Your task to perform on an android device: uninstall "LinkedIn" Image 0: 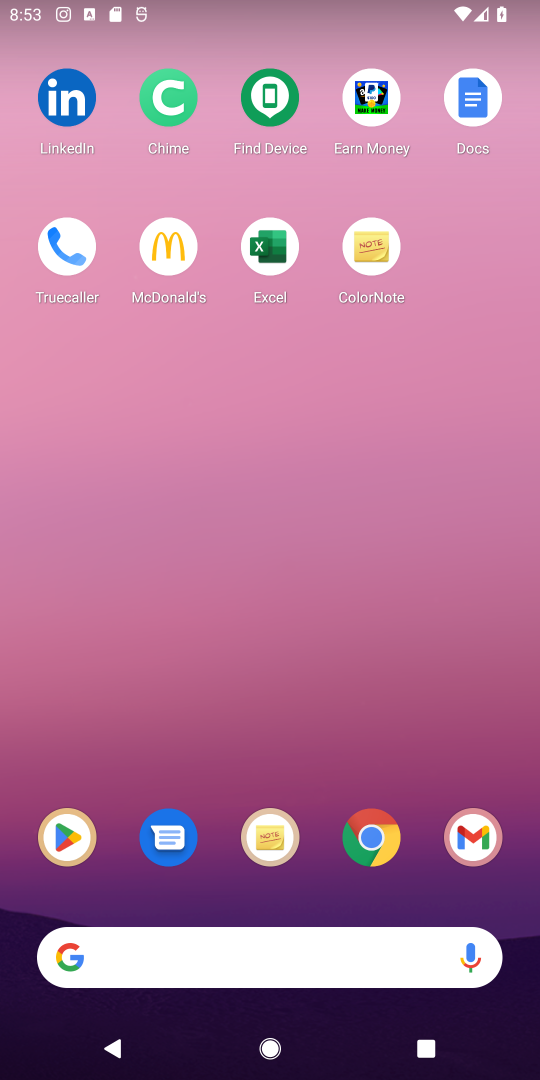
Step 0: click (72, 837)
Your task to perform on an android device: uninstall "LinkedIn" Image 1: 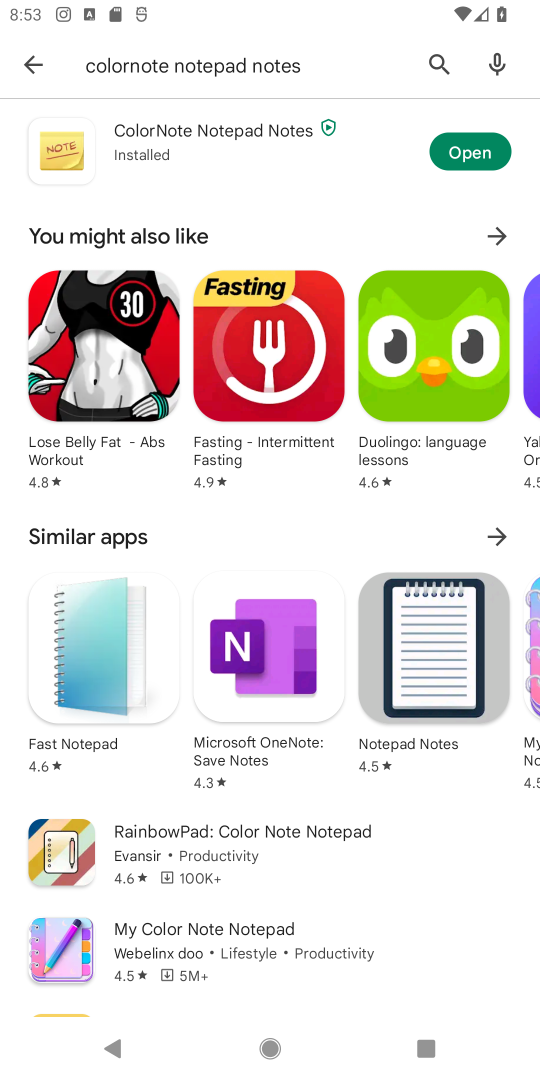
Step 1: click (437, 67)
Your task to perform on an android device: uninstall "LinkedIn" Image 2: 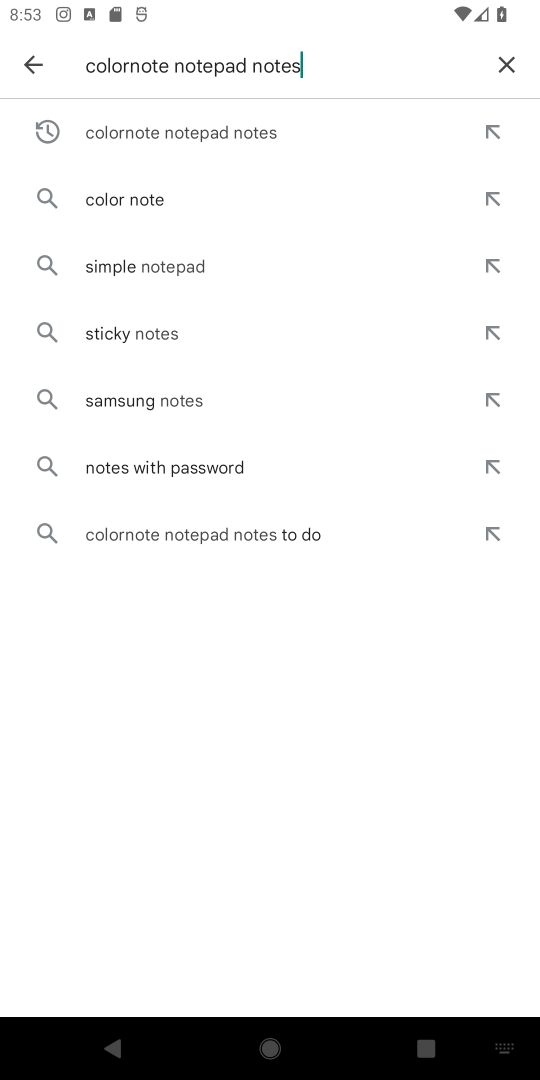
Step 2: click (501, 73)
Your task to perform on an android device: uninstall "LinkedIn" Image 3: 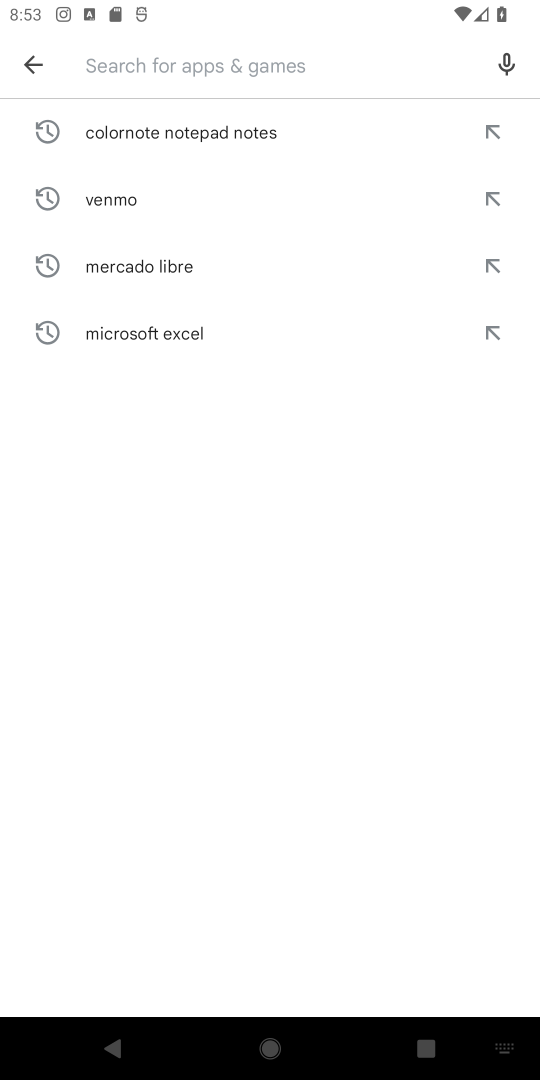
Step 3: type "LinkedIn"
Your task to perform on an android device: uninstall "LinkedIn" Image 4: 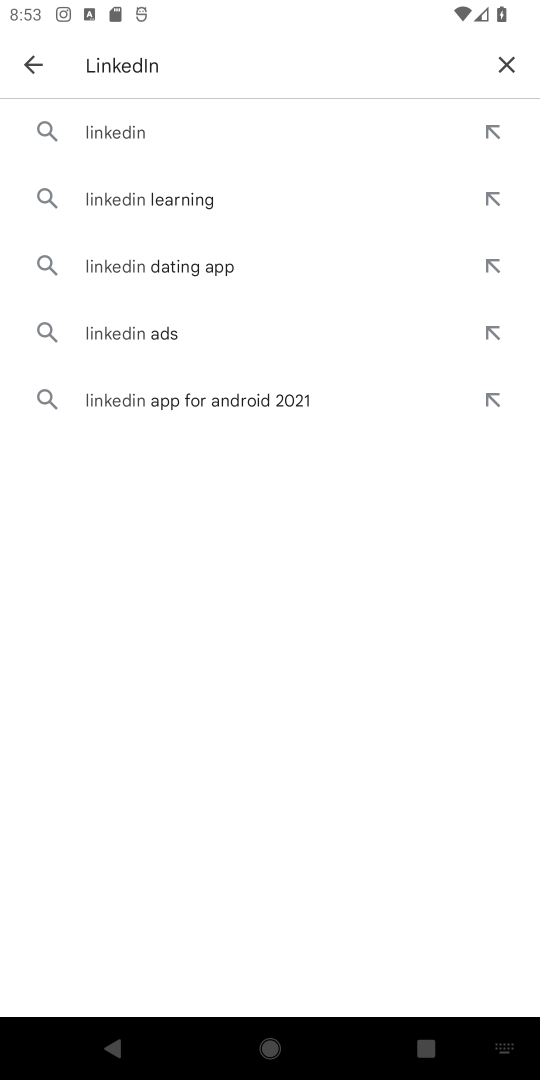
Step 4: click (109, 136)
Your task to perform on an android device: uninstall "LinkedIn" Image 5: 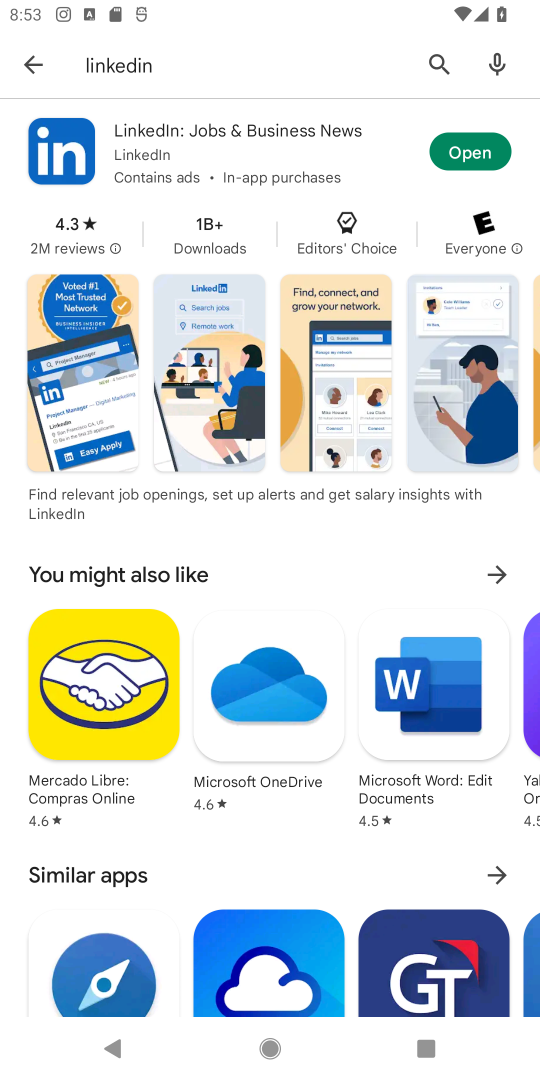
Step 5: click (140, 159)
Your task to perform on an android device: uninstall "LinkedIn" Image 6: 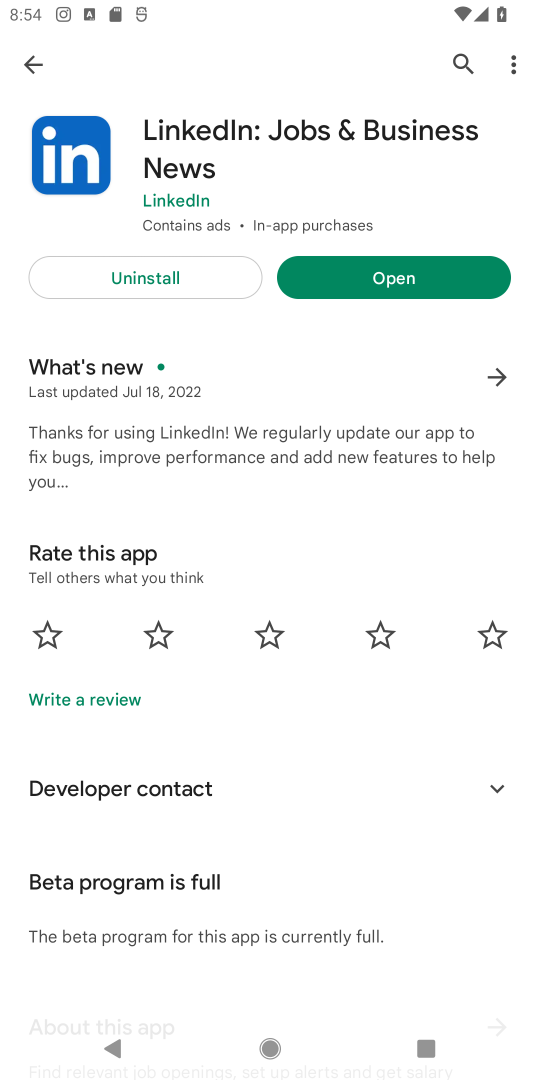
Step 6: click (131, 293)
Your task to perform on an android device: uninstall "LinkedIn" Image 7: 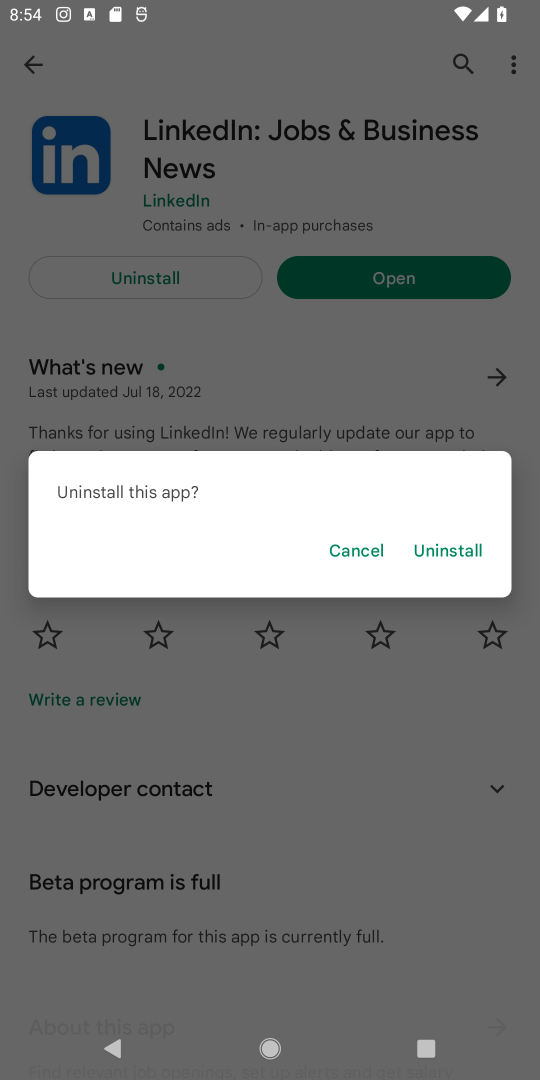
Step 7: click (469, 553)
Your task to perform on an android device: uninstall "LinkedIn" Image 8: 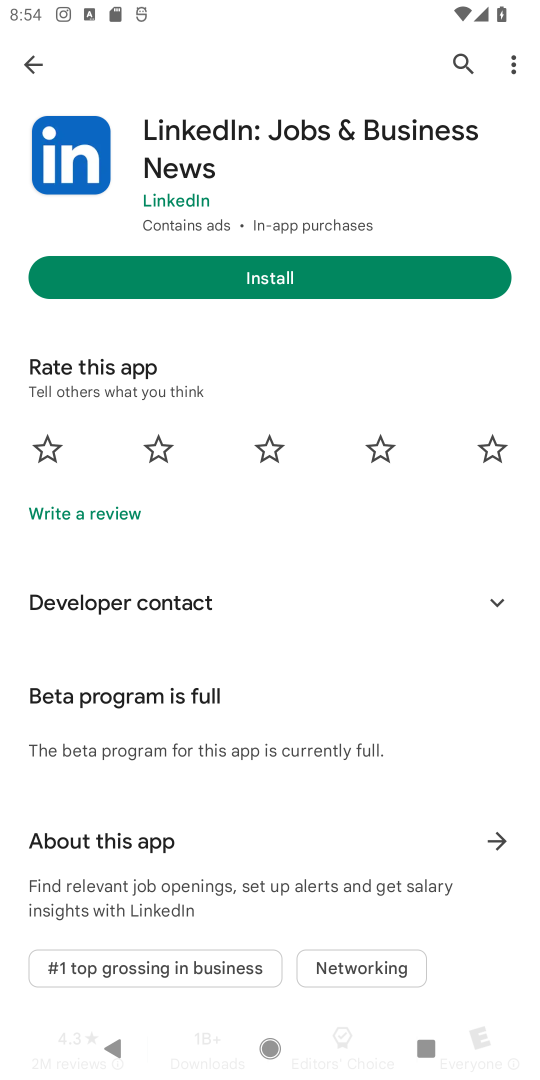
Step 8: task complete